Your task to perform on an android device: change timer sound Image 0: 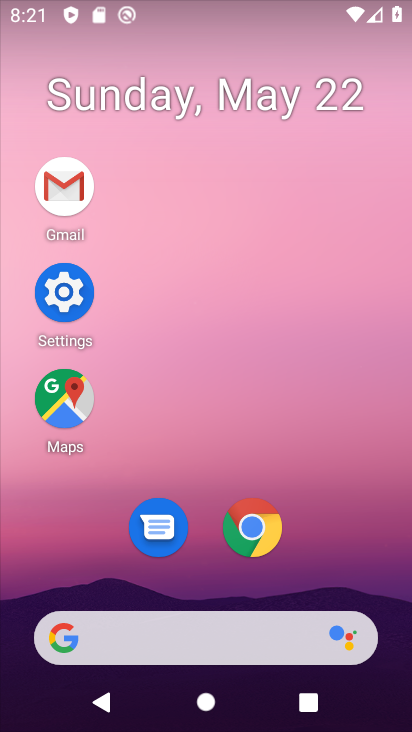
Step 0: drag from (335, 510) to (341, 120)
Your task to perform on an android device: change timer sound Image 1: 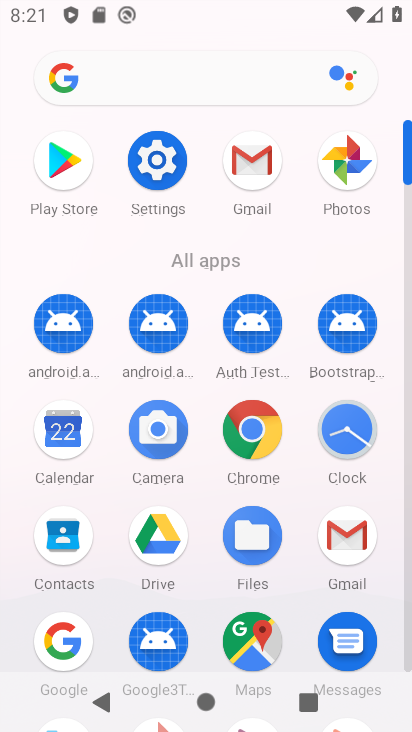
Step 1: drag from (351, 457) to (155, 200)
Your task to perform on an android device: change timer sound Image 2: 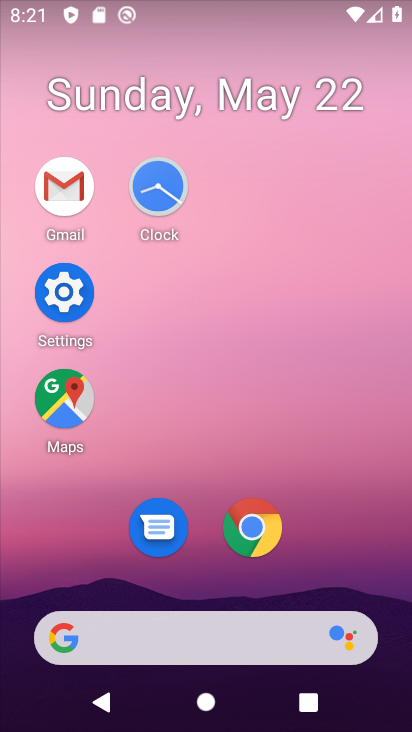
Step 2: drag from (72, 189) to (140, 292)
Your task to perform on an android device: change timer sound Image 3: 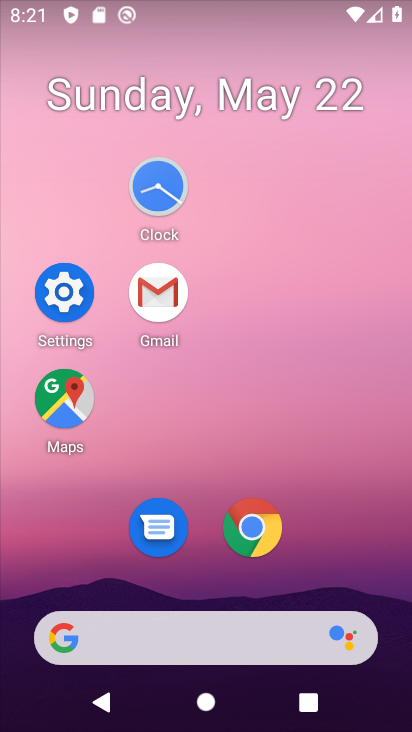
Step 3: drag from (69, 300) to (51, 186)
Your task to perform on an android device: change timer sound Image 4: 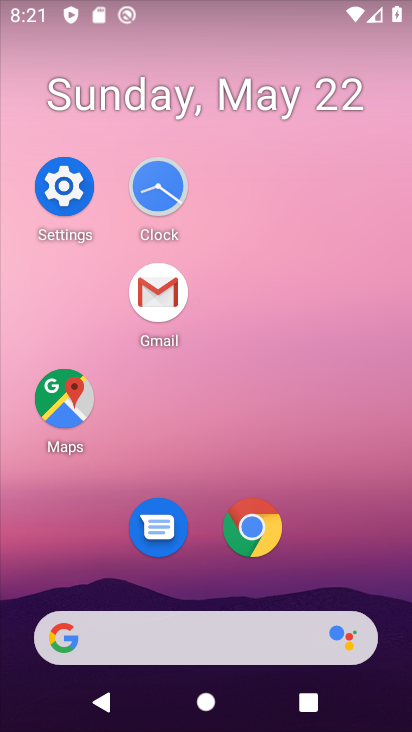
Step 4: drag from (165, 292) to (81, 283)
Your task to perform on an android device: change timer sound Image 5: 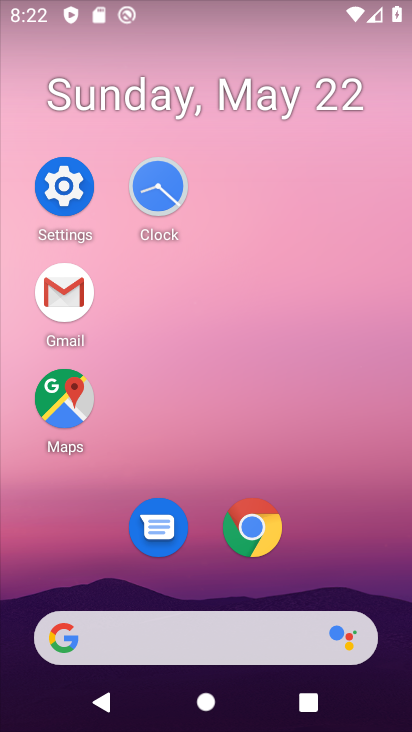
Step 5: click (168, 199)
Your task to perform on an android device: change timer sound Image 6: 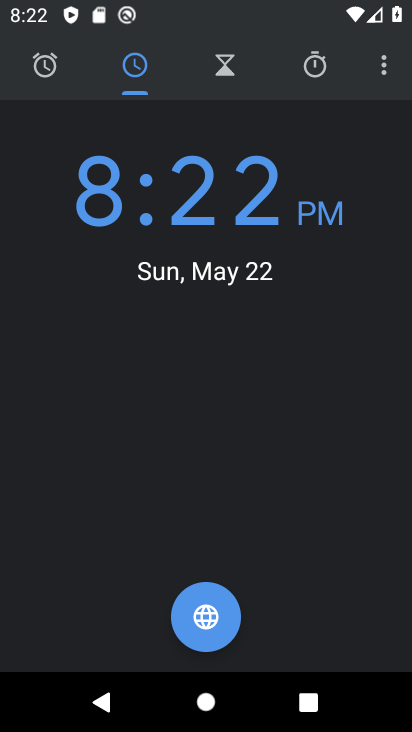
Step 6: click (408, 54)
Your task to perform on an android device: change timer sound Image 7: 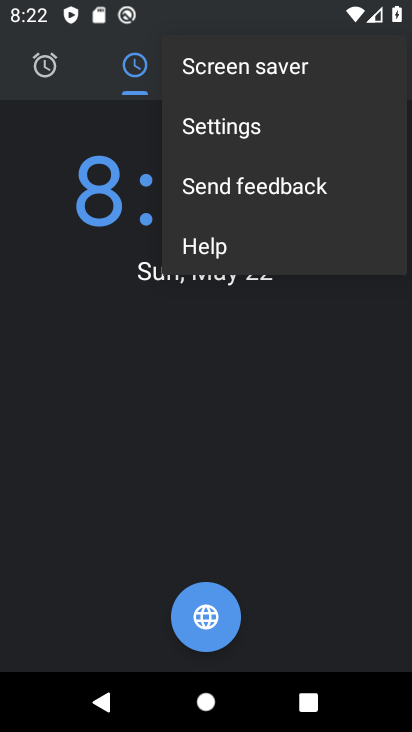
Step 7: click (228, 139)
Your task to perform on an android device: change timer sound Image 8: 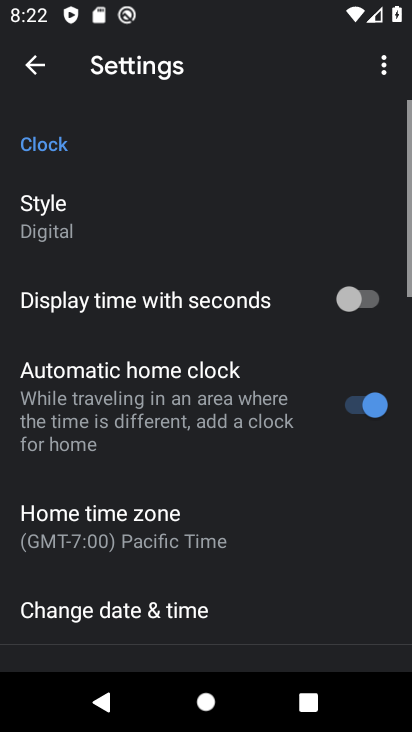
Step 8: drag from (242, 437) to (214, 114)
Your task to perform on an android device: change timer sound Image 9: 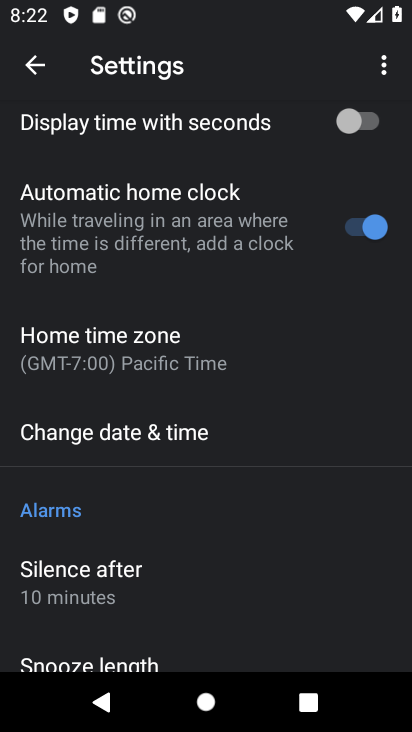
Step 9: drag from (230, 557) to (207, 154)
Your task to perform on an android device: change timer sound Image 10: 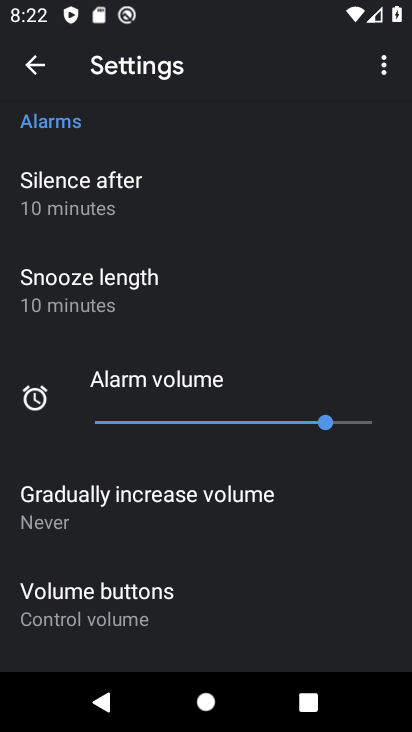
Step 10: drag from (191, 618) to (170, 182)
Your task to perform on an android device: change timer sound Image 11: 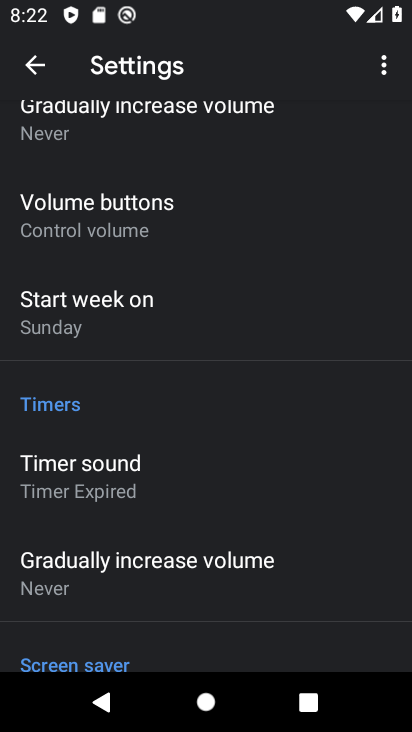
Step 11: click (146, 492)
Your task to perform on an android device: change timer sound Image 12: 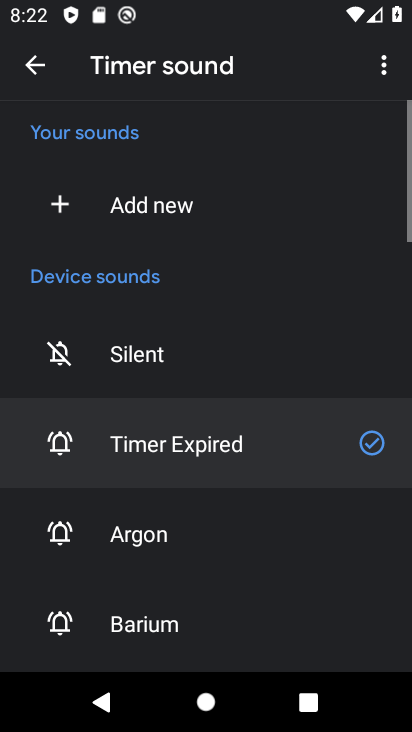
Step 12: click (107, 531)
Your task to perform on an android device: change timer sound Image 13: 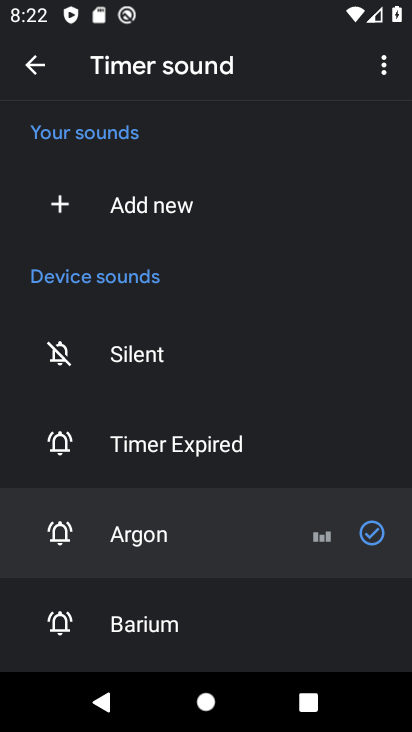
Step 13: task complete